Your task to perform on an android device: clear all cookies in the chrome app Image 0: 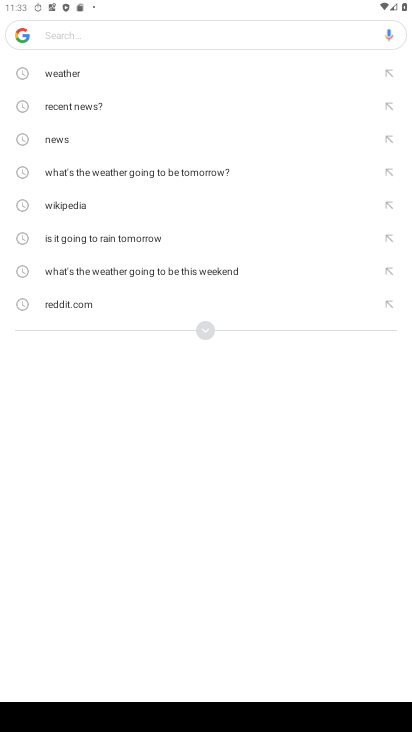
Step 0: press home button
Your task to perform on an android device: clear all cookies in the chrome app Image 1: 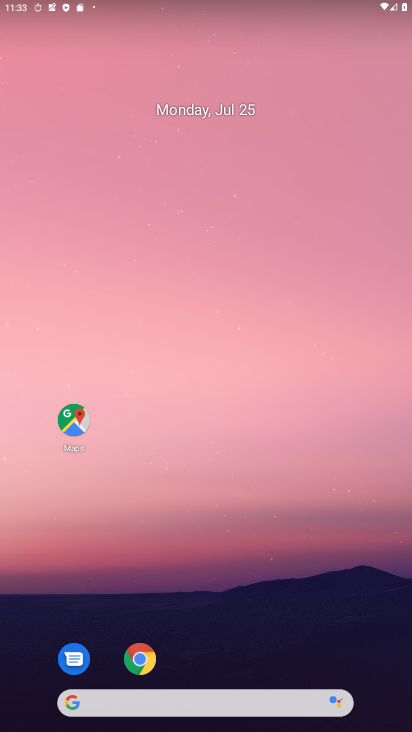
Step 1: click (134, 666)
Your task to perform on an android device: clear all cookies in the chrome app Image 2: 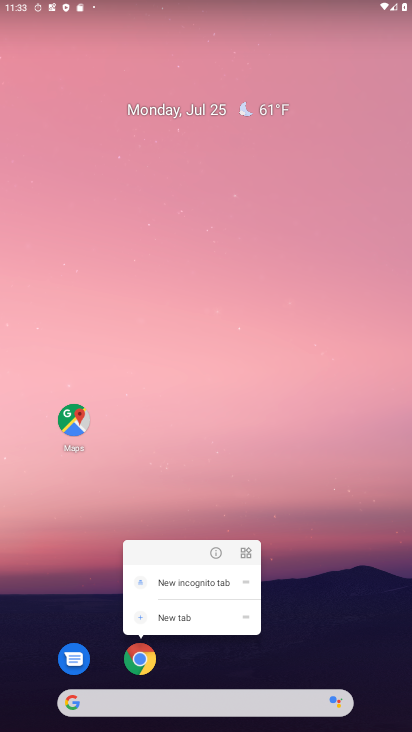
Step 2: click (133, 655)
Your task to perform on an android device: clear all cookies in the chrome app Image 3: 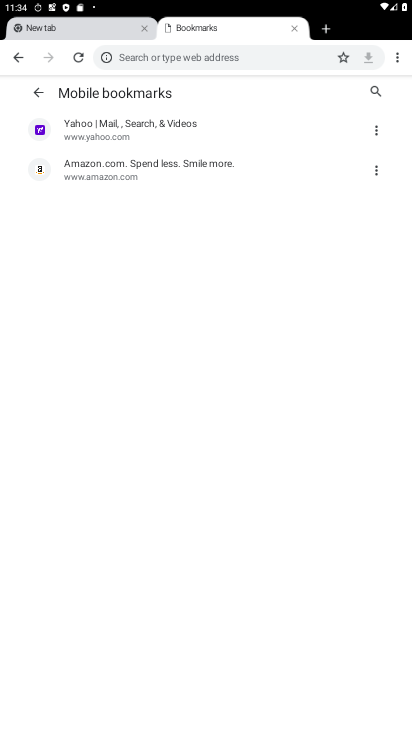
Step 3: click (398, 56)
Your task to perform on an android device: clear all cookies in the chrome app Image 4: 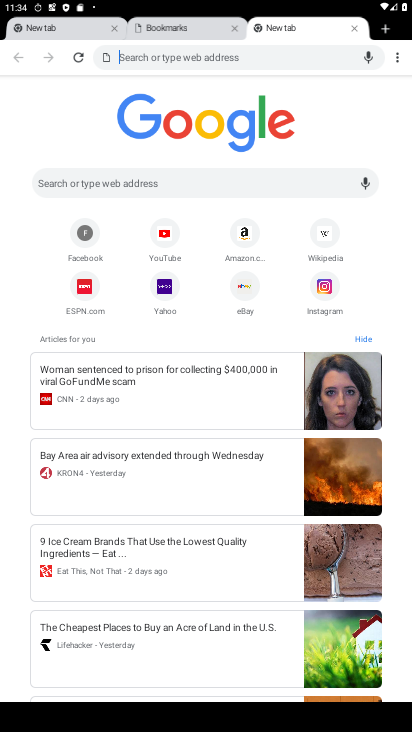
Step 4: click (399, 54)
Your task to perform on an android device: clear all cookies in the chrome app Image 5: 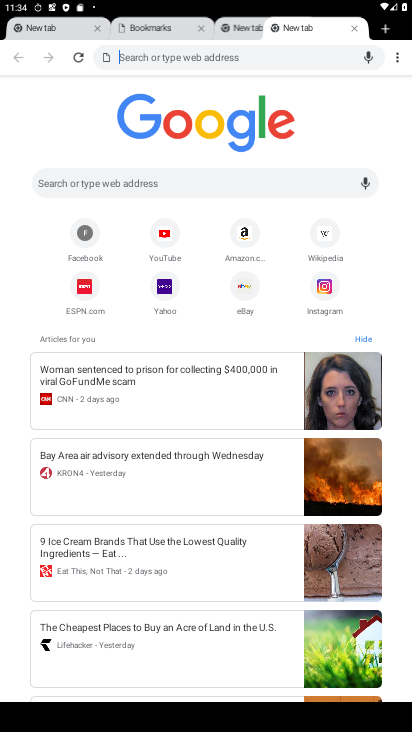
Step 5: click (388, 56)
Your task to perform on an android device: clear all cookies in the chrome app Image 6: 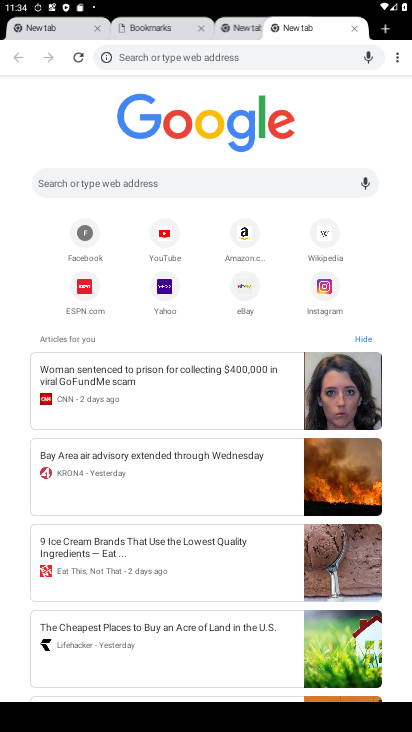
Step 6: task complete